Your task to perform on an android device: change the clock display to analog Image 0: 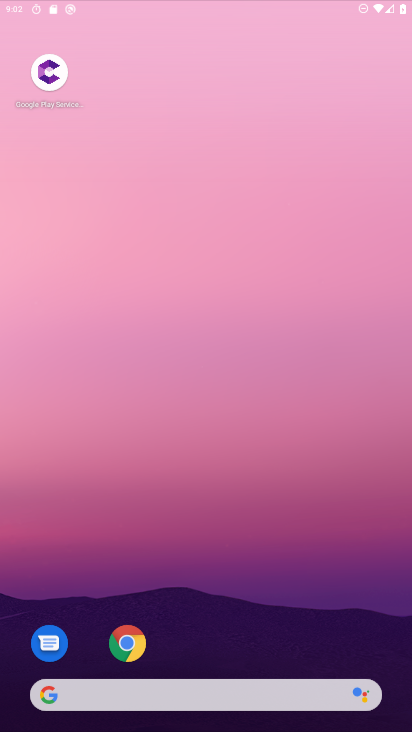
Step 0: click (276, 107)
Your task to perform on an android device: change the clock display to analog Image 1: 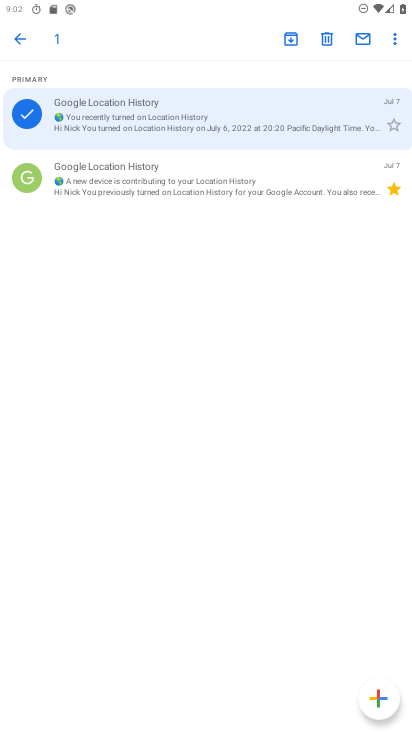
Step 1: press home button
Your task to perform on an android device: change the clock display to analog Image 2: 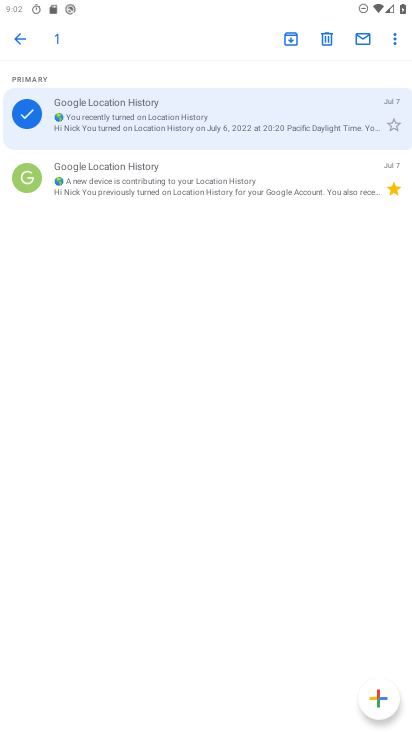
Step 2: press home button
Your task to perform on an android device: change the clock display to analog Image 3: 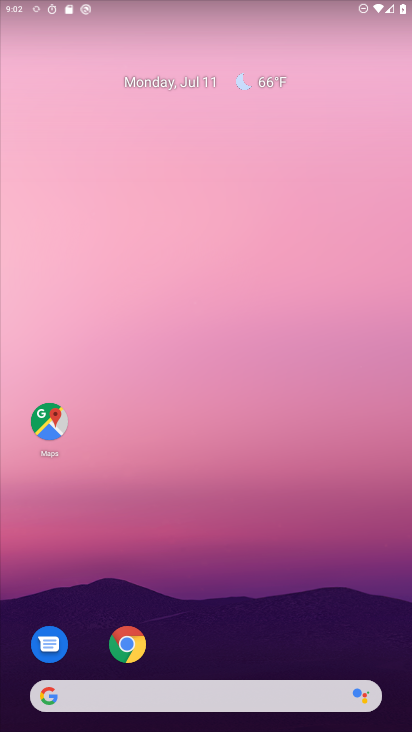
Step 3: drag from (325, 571) to (275, 105)
Your task to perform on an android device: change the clock display to analog Image 4: 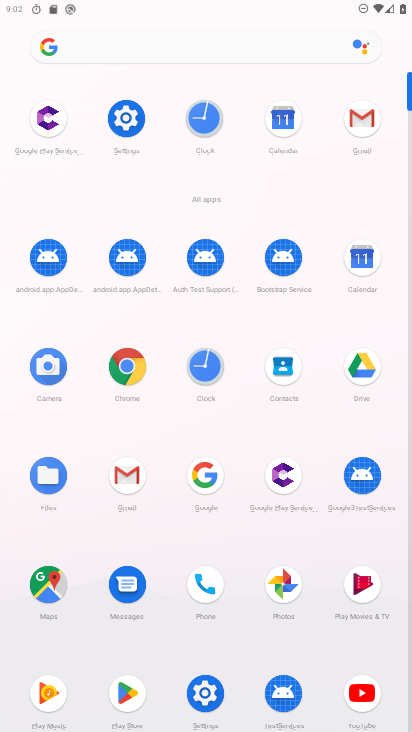
Step 4: click (205, 359)
Your task to perform on an android device: change the clock display to analog Image 5: 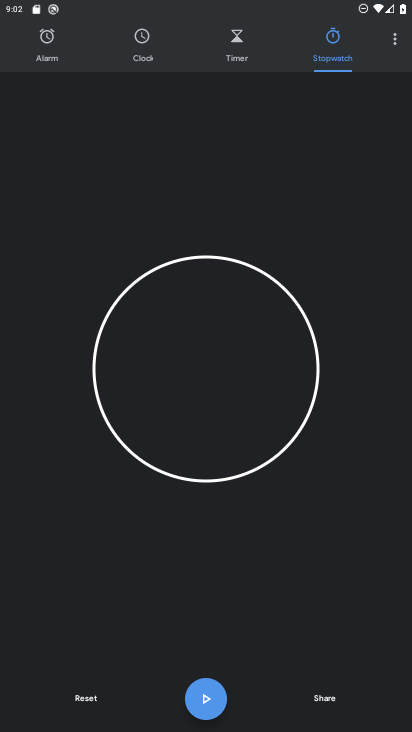
Step 5: click (394, 34)
Your task to perform on an android device: change the clock display to analog Image 6: 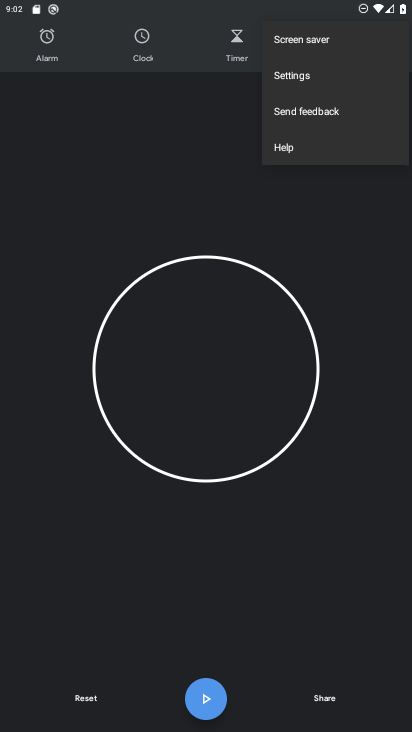
Step 6: click (299, 79)
Your task to perform on an android device: change the clock display to analog Image 7: 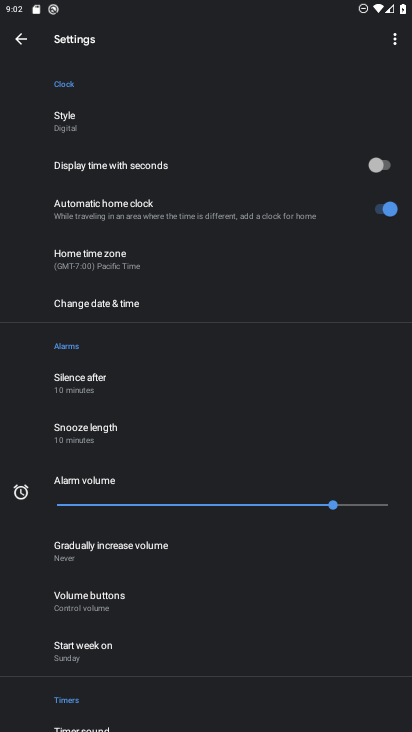
Step 7: click (62, 115)
Your task to perform on an android device: change the clock display to analog Image 8: 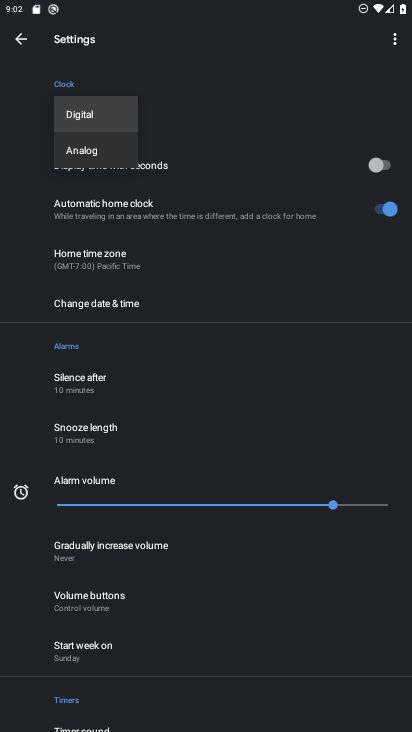
Step 8: click (95, 159)
Your task to perform on an android device: change the clock display to analog Image 9: 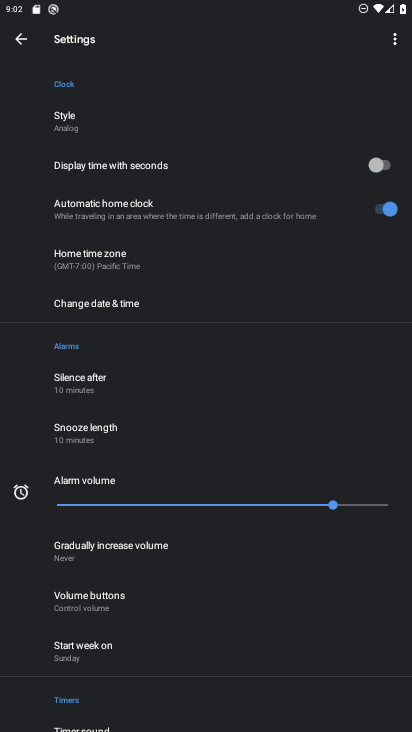
Step 9: task complete